Your task to perform on an android device: Search for "razer naga" on amazon.com, select the first entry, and add it to the cart. Image 0: 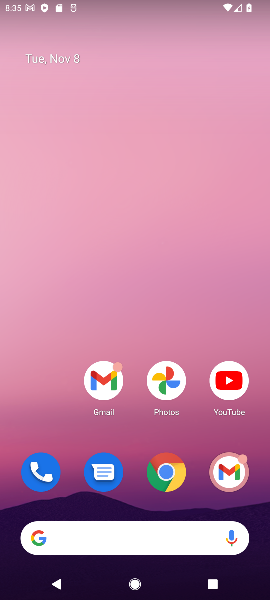
Step 0: click (163, 469)
Your task to perform on an android device: Search for "razer naga" on amazon.com, select the first entry, and add it to the cart. Image 1: 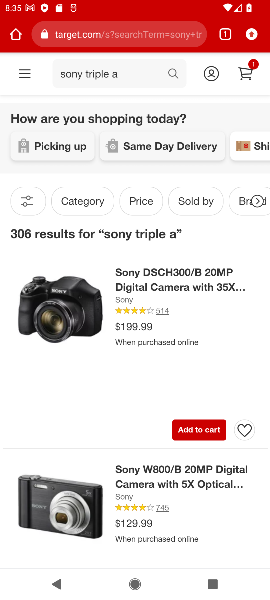
Step 1: click (134, 34)
Your task to perform on an android device: Search for "razer naga" on amazon.com, select the first entry, and add it to the cart. Image 2: 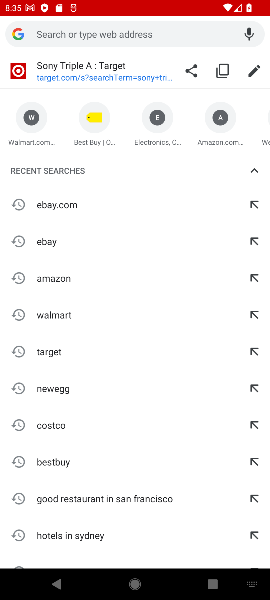
Step 2: click (208, 140)
Your task to perform on an android device: Search for "razer naga" on amazon.com, select the first entry, and add it to the cart. Image 3: 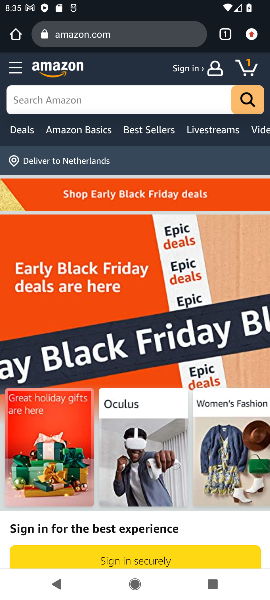
Step 3: click (29, 90)
Your task to perform on an android device: Search for "razer naga" on amazon.com, select the first entry, and add it to the cart. Image 4: 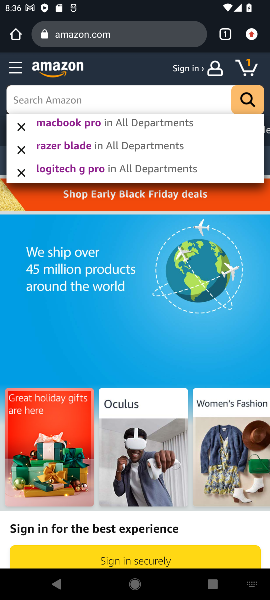
Step 4: type "razer naga"
Your task to perform on an android device: Search for "razer naga" on amazon.com, select the first entry, and add it to the cart. Image 5: 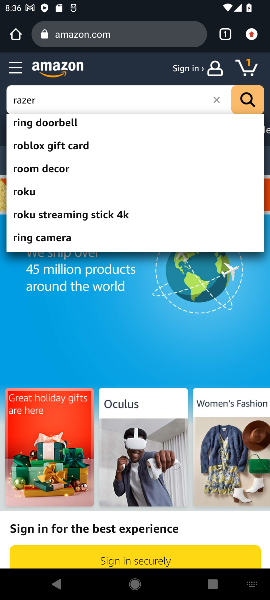
Step 5: press enter
Your task to perform on an android device: Search for "razer naga" on amazon.com, select the first entry, and add it to the cart. Image 6: 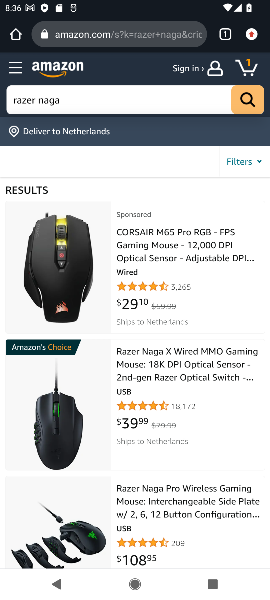
Step 6: task complete